Your task to perform on an android device: Do I have any events today? Image 0: 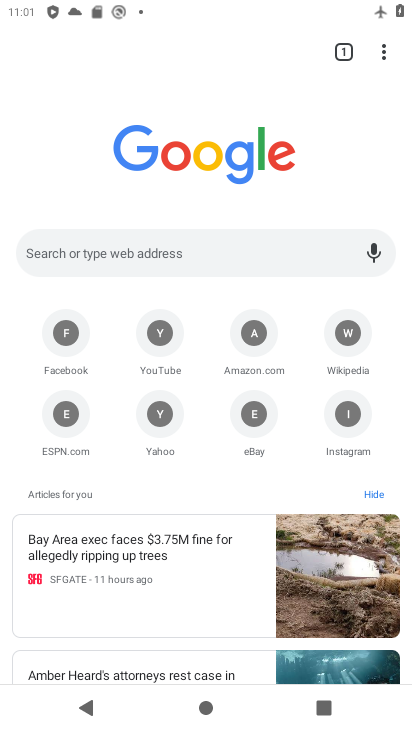
Step 0: press home button
Your task to perform on an android device: Do I have any events today? Image 1: 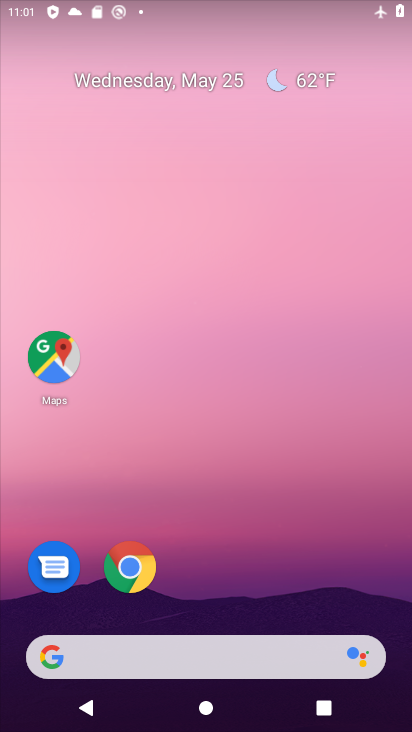
Step 1: drag from (400, 618) to (346, 123)
Your task to perform on an android device: Do I have any events today? Image 2: 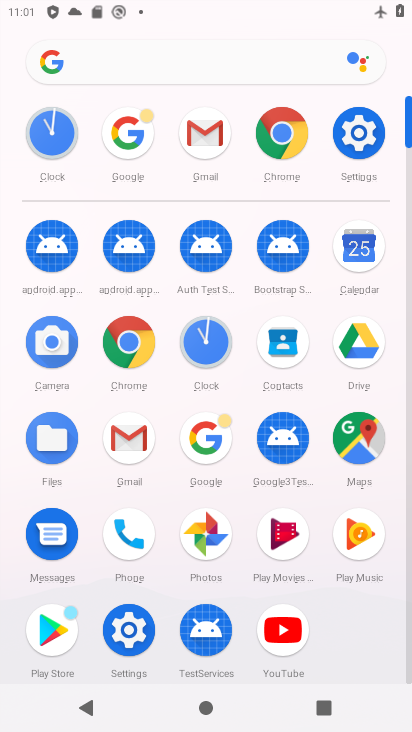
Step 2: click (363, 263)
Your task to perform on an android device: Do I have any events today? Image 3: 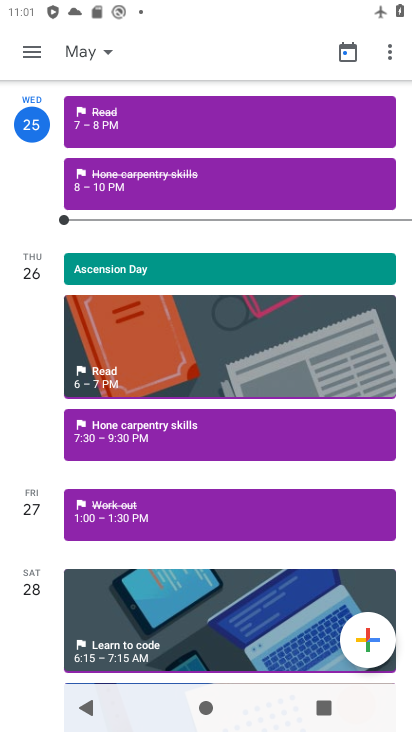
Step 3: click (94, 42)
Your task to perform on an android device: Do I have any events today? Image 4: 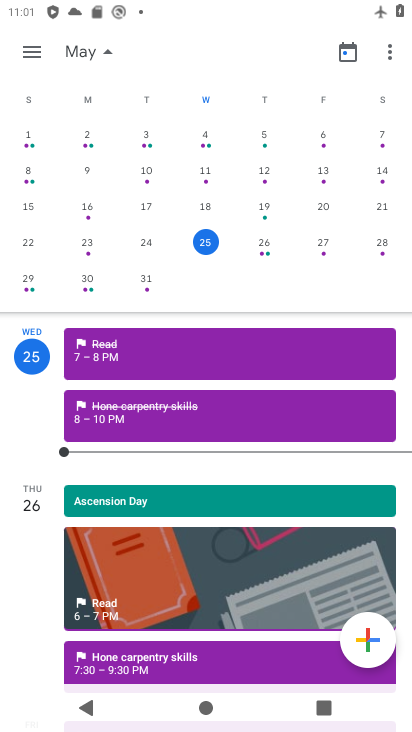
Step 4: click (265, 250)
Your task to perform on an android device: Do I have any events today? Image 5: 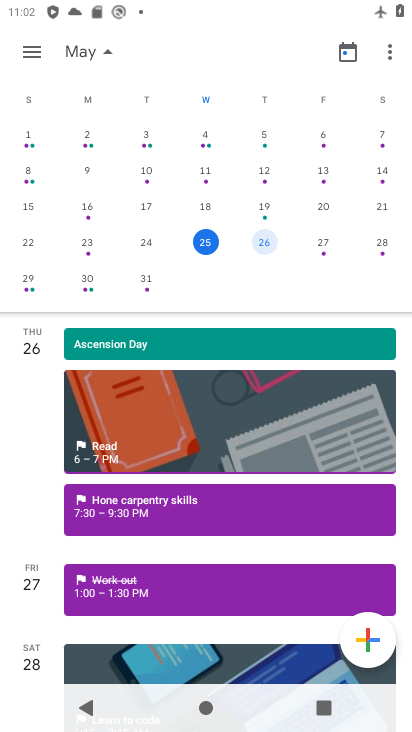
Step 5: click (267, 514)
Your task to perform on an android device: Do I have any events today? Image 6: 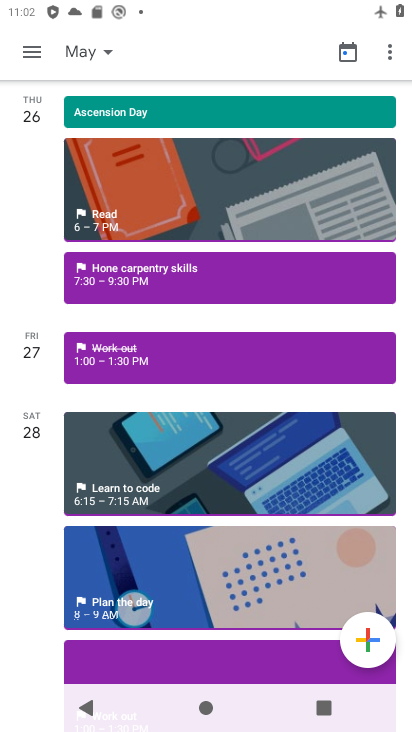
Step 6: click (116, 175)
Your task to perform on an android device: Do I have any events today? Image 7: 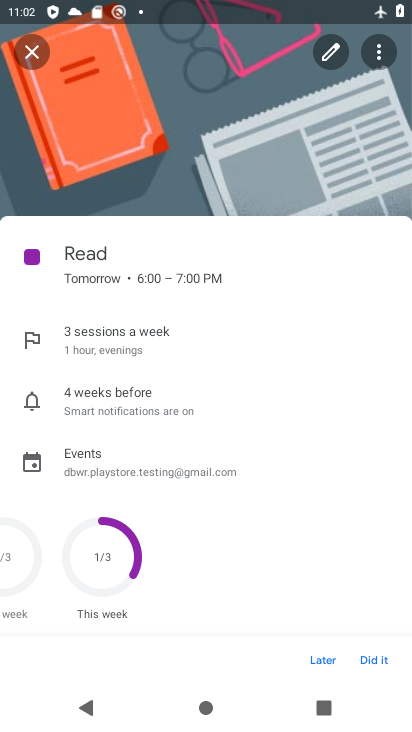
Step 7: task complete